Your task to perform on an android device: open a new tab in the chrome app Image 0: 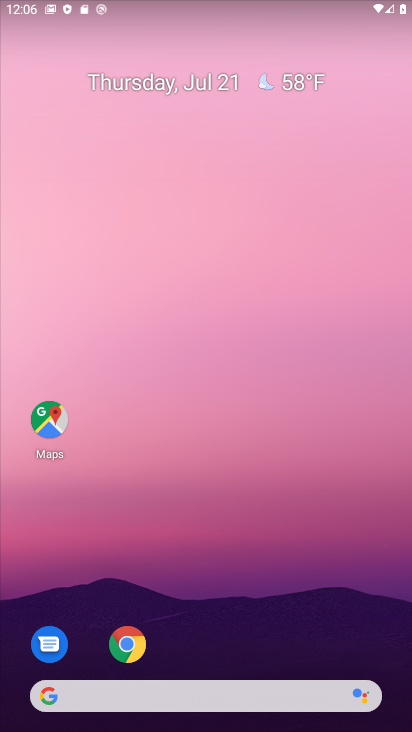
Step 0: click (124, 656)
Your task to perform on an android device: open a new tab in the chrome app Image 1: 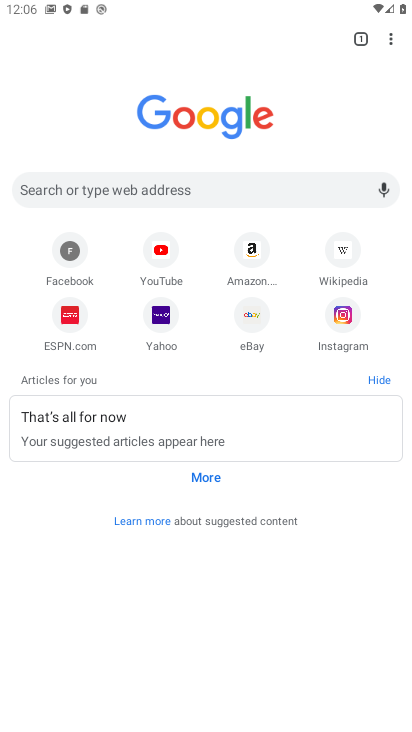
Step 1: click (367, 32)
Your task to perform on an android device: open a new tab in the chrome app Image 2: 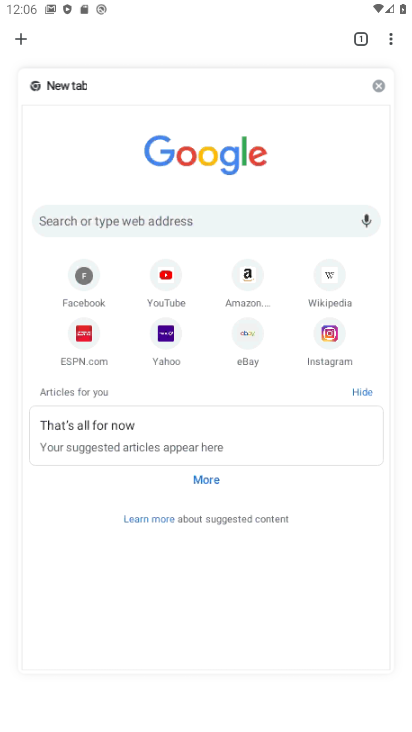
Step 2: click (23, 39)
Your task to perform on an android device: open a new tab in the chrome app Image 3: 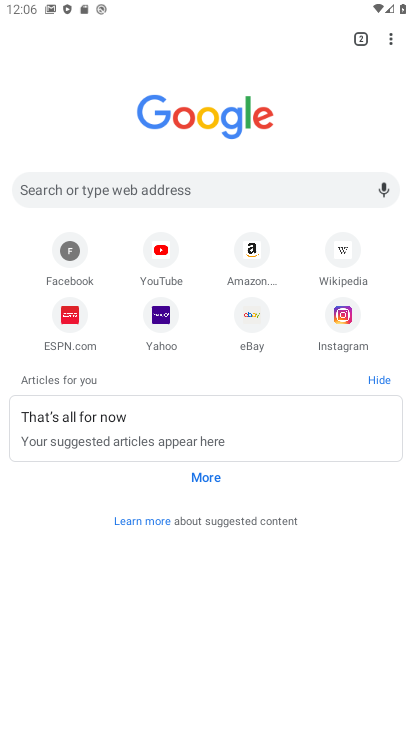
Step 3: task complete